Your task to perform on an android device: uninstall "Google Photos" Image 0: 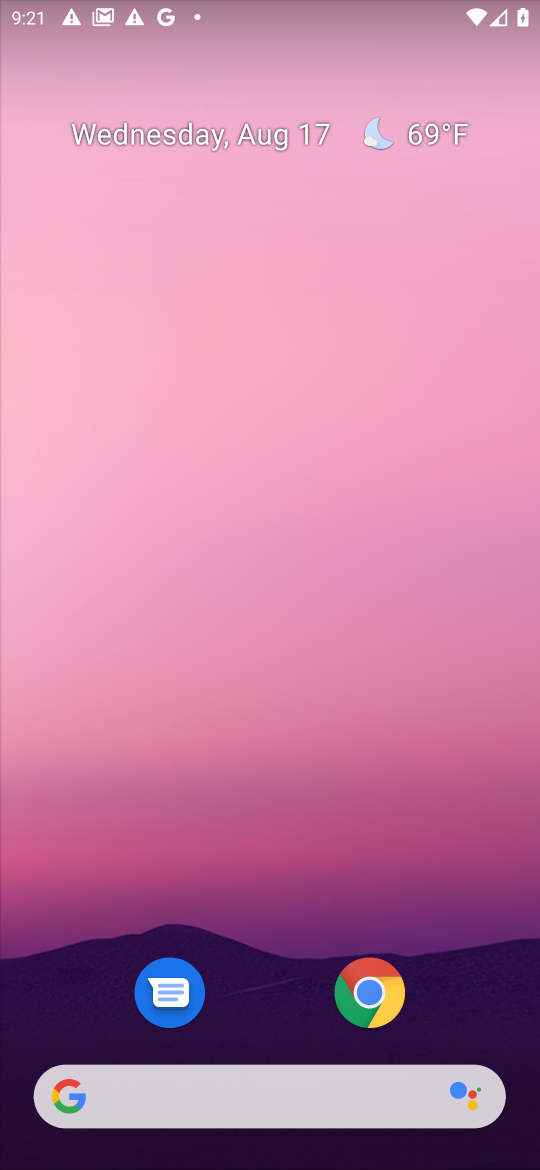
Step 0: drag from (483, 985) to (153, 28)
Your task to perform on an android device: uninstall "Google Photos" Image 1: 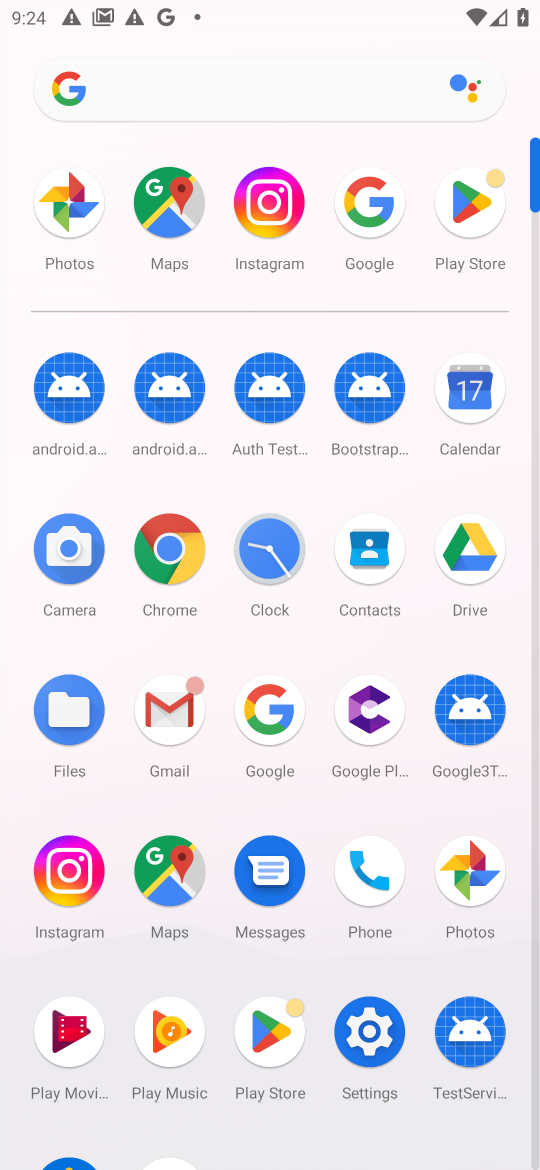
Step 1: click (292, 1030)
Your task to perform on an android device: uninstall "Google Photos" Image 2: 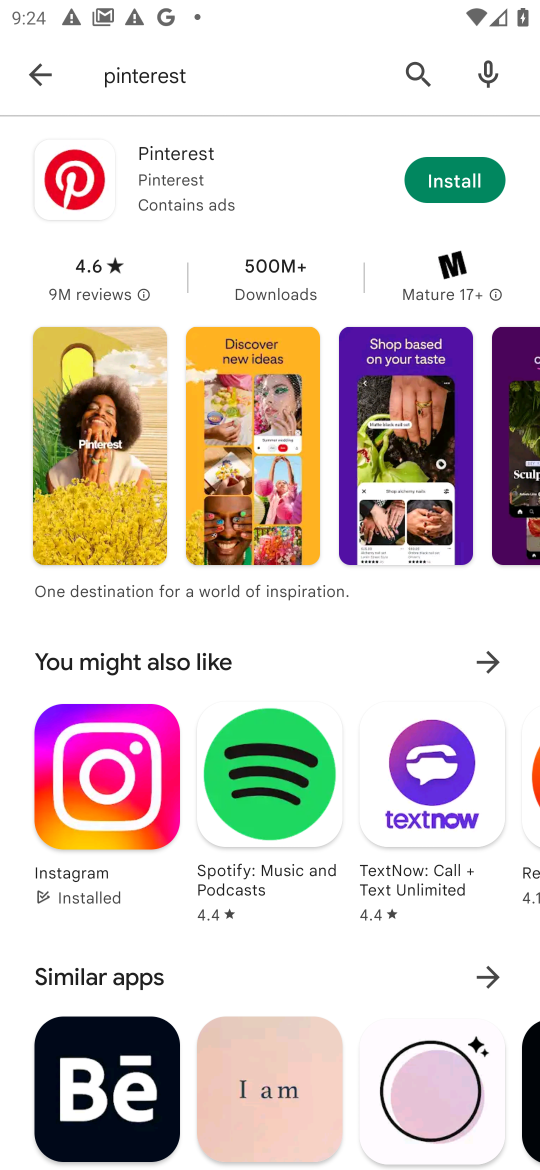
Step 2: press back button
Your task to perform on an android device: uninstall "Google Photos" Image 3: 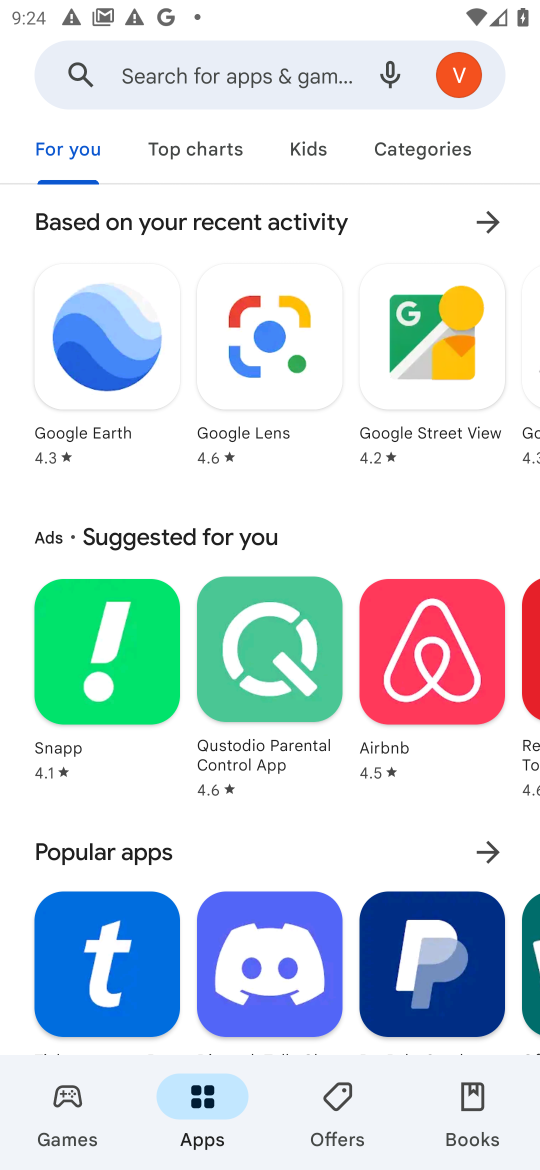
Step 3: click (164, 77)
Your task to perform on an android device: uninstall "Google Photos" Image 4: 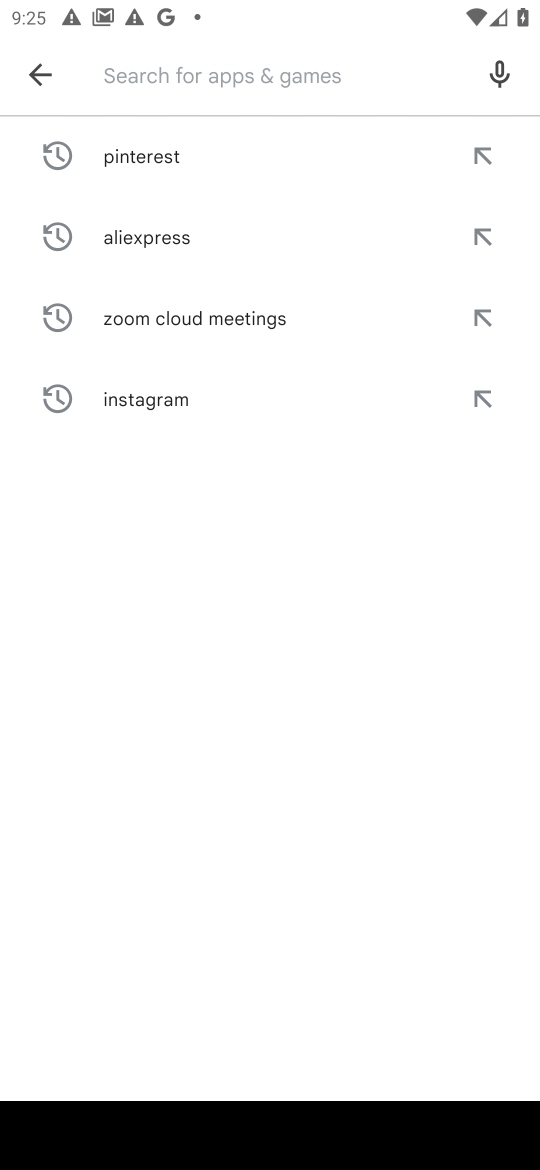
Step 4: type "Google Photos"
Your task to perform on an android device: uninstall "Google Photos" Image 5: 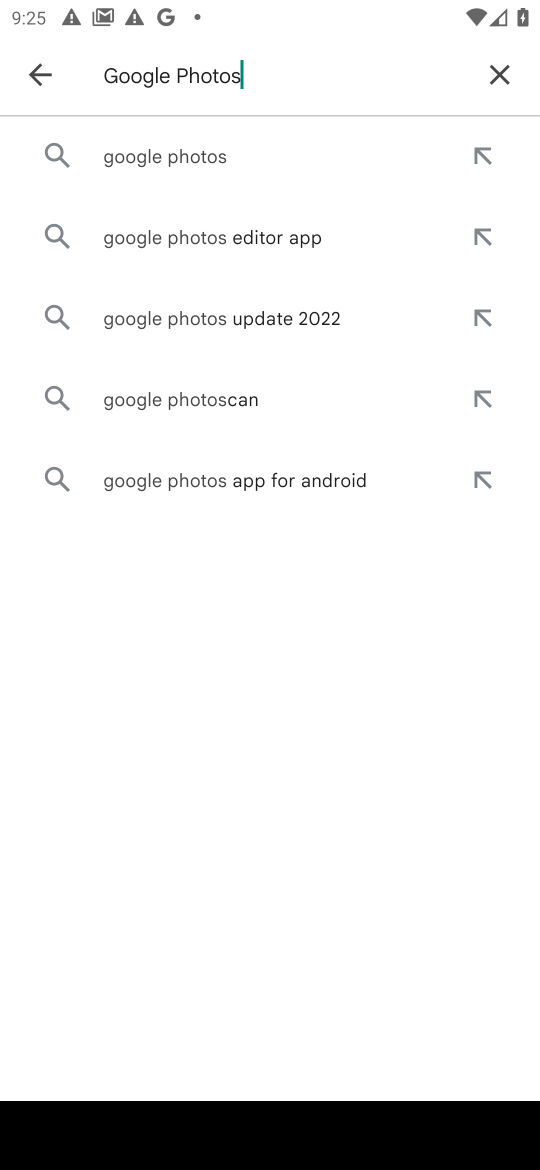
Step 5: click (173, 167)
Your task to perform on an android device: uninstall "Google Photos" Image 6: 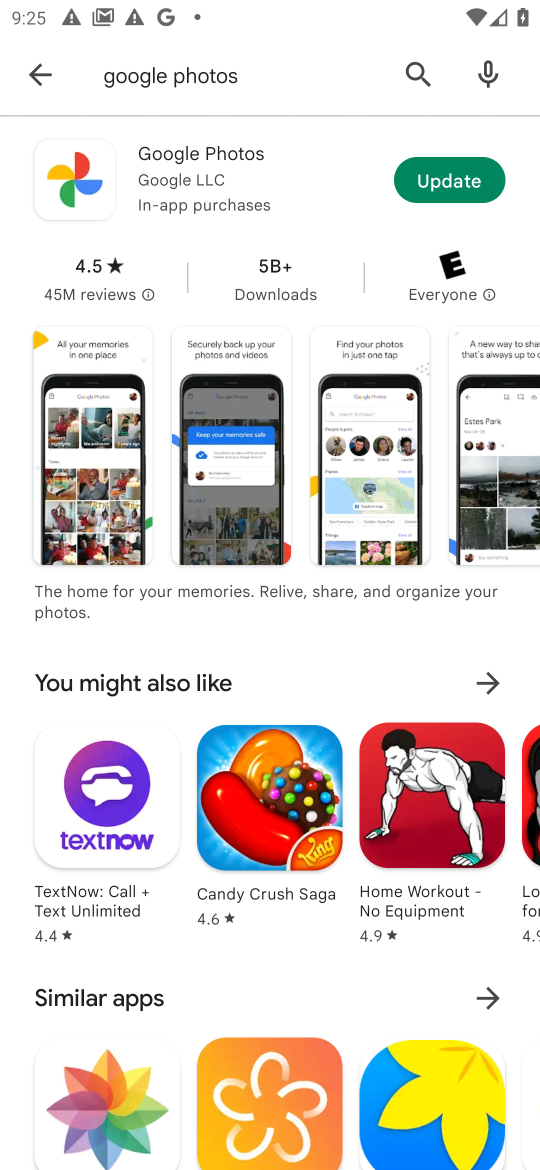
Step 6: task complete